Your task to perform on an android device: Set the phone to "Do not disturb". Image 0: 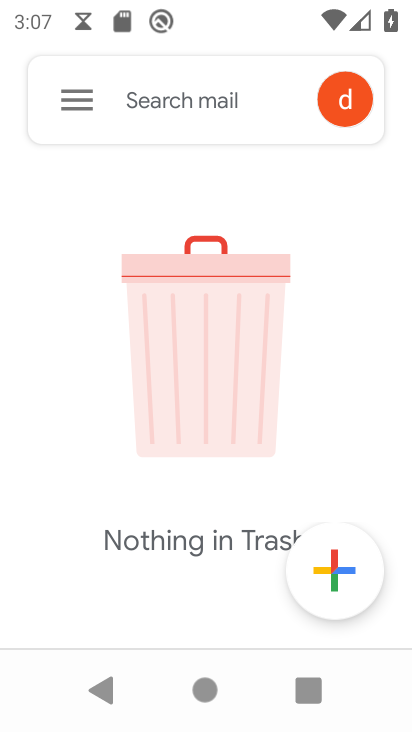
Step 0: press home button
Your task to perform on an android device: Set the phone to "Do not disturb". Image 1: 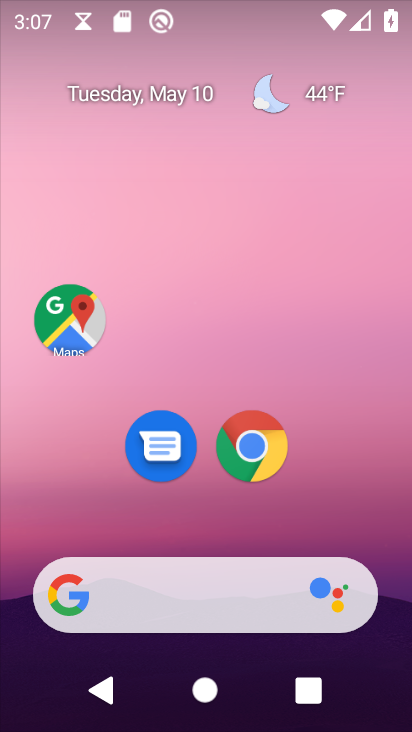
Step 1: drag from (336, 440) to (310, 103)
Your task to perform on an android device: Set the phone to "Do not disturb". Image 2: 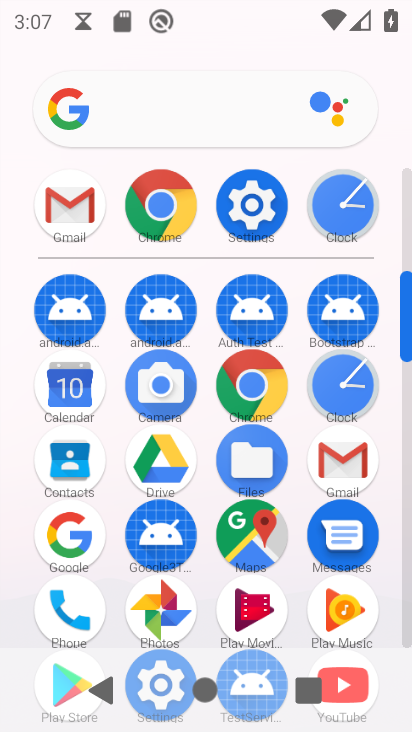
Step 2: click (240, 218)
Your task to perform on an android device: Set the phone to "Do not disturb". Image 3: 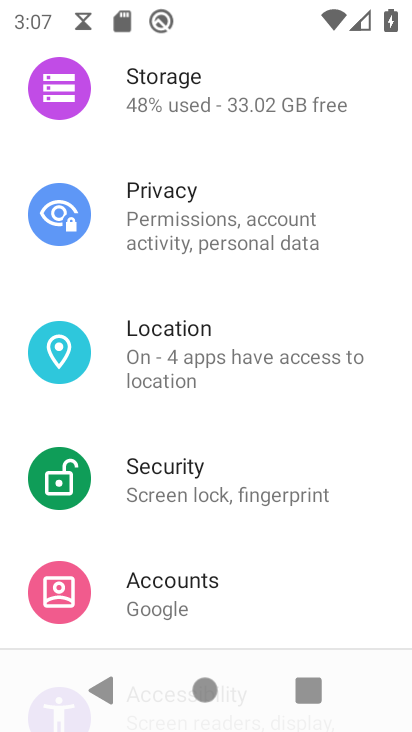
Step 3: drag from (257, 530) to (292, 143)
Your task to perform on an android device: Set the phone to "Do not disturb". Image 4: 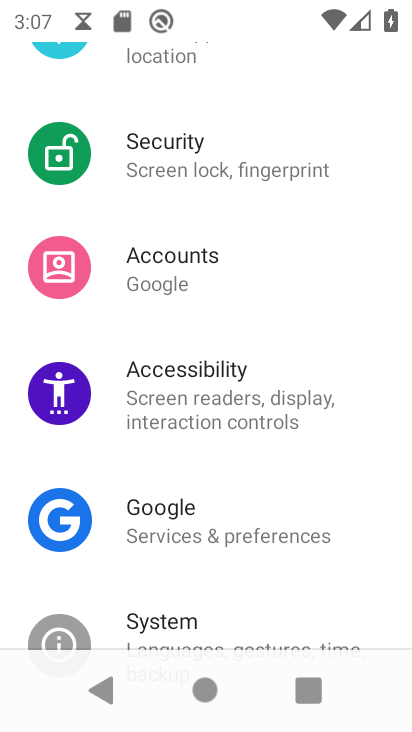
Step 4: drag from (266, 542) to (169, 189)
Your task to perform on an android device: Set the phone to "Do not disturb". Image 5: 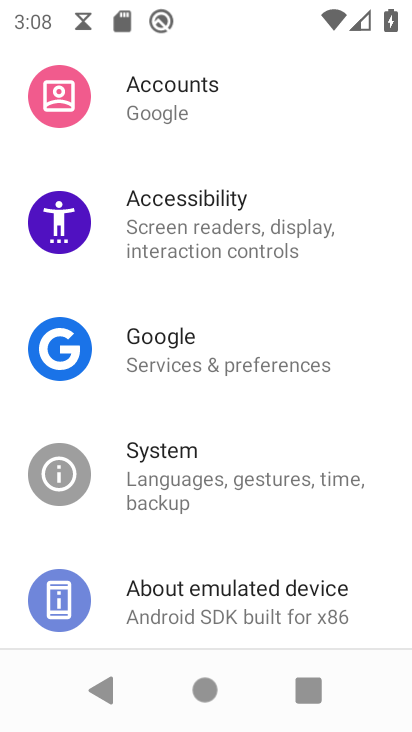
Step 5: drag from (218, 549) to (230, 190)
Your task to perform on an android device: Set the phone to "Do not disturb". Image 6: 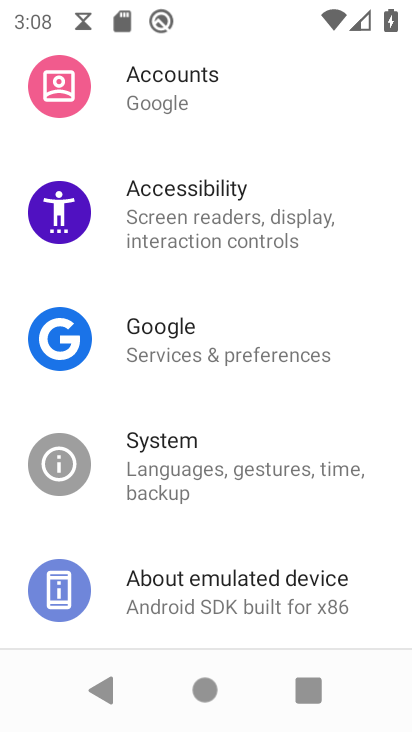
Step 6: drag from (268, 179) to (234, 519)
Your task to perform on an android device: Set the phone to "Do not disturb". Image 7: 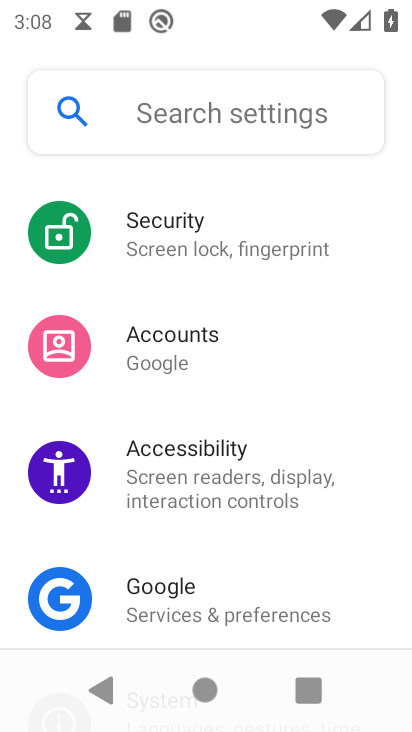
Step 7: drag from (229, 261) to (190, 611)
Your task to perform on an android device: Set the phone to "Do not disturb". Image 8: 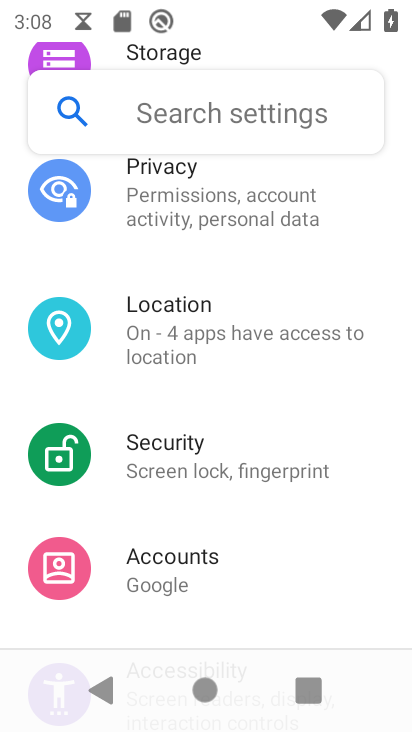
Step 8: drag from (233, 288) to (246, 596)
Your task to perform on an android device: Set the phone to "Do not disturb". Image 9: 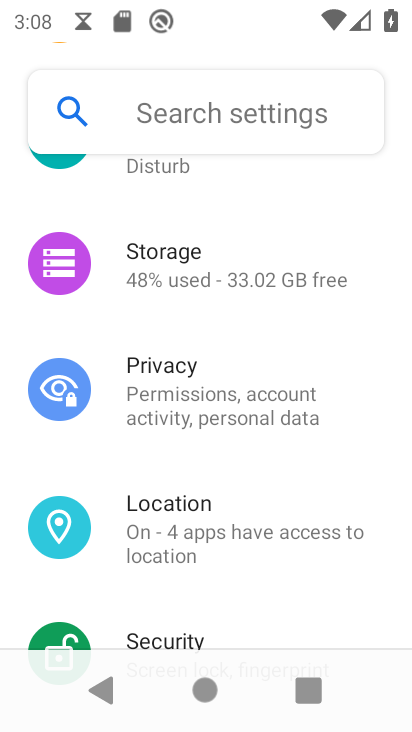
Step 9: drag from (290, 291) to (268, 626)
Your task to perform on an android device: Set the phone to "Do not disturb". Image 10: 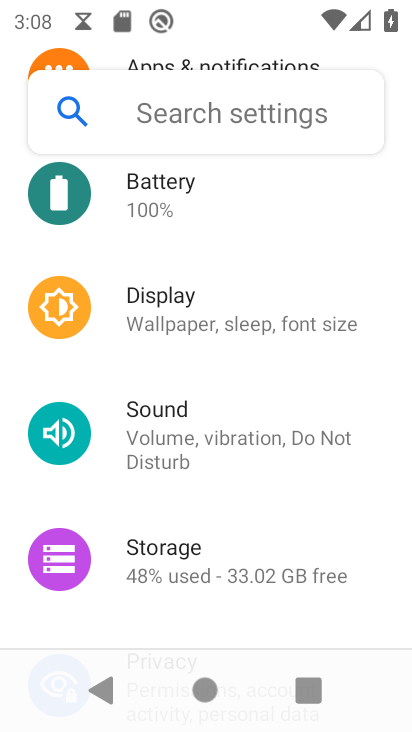
Step 10: click (205, 431)
Your task to perform on an android device: Set the phone to "Do not disturb". Image 11: 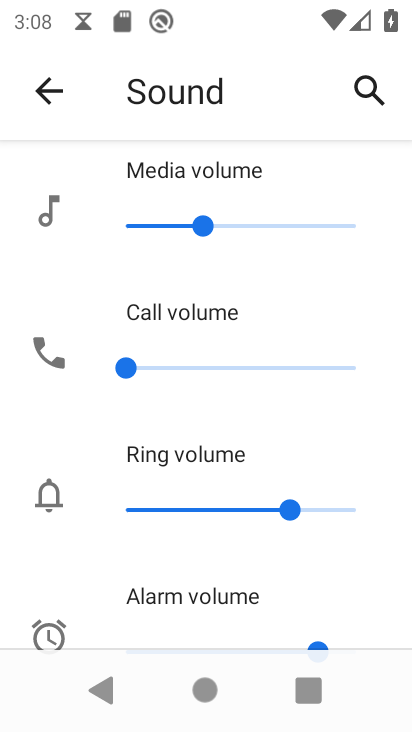
Step 11: drag from (244, 575) to (212, 205)
Your task to perform on an android device: Set the phone to "Do not disturb". Image 12: 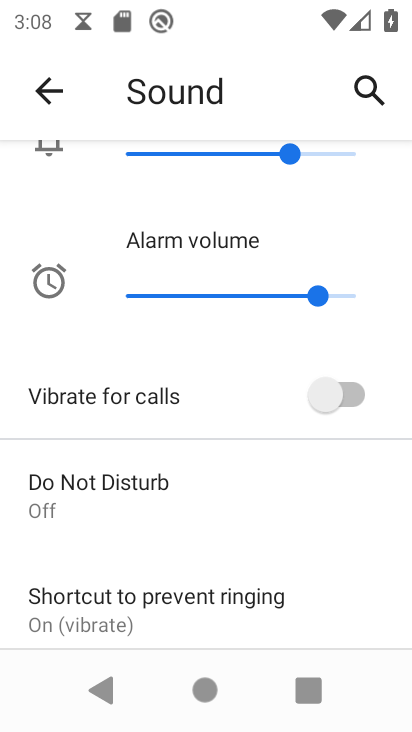
Step 12: drag from (254, 554) to (265, 211)
Your task to perform on an android device: Set the phone to "Do not disturb". Image 13: 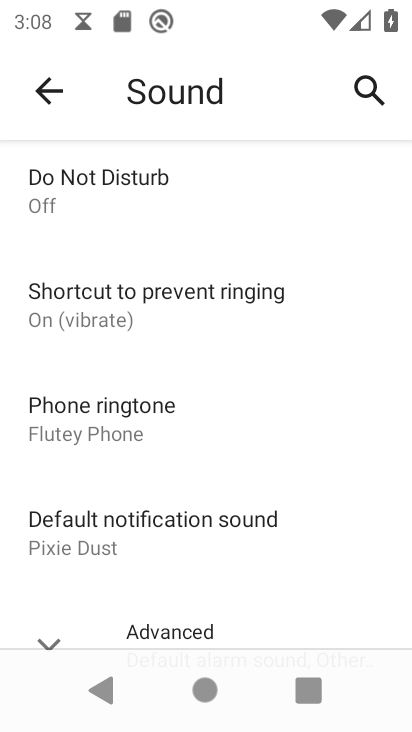
Step 13: drag from (256, 559) to (267, 196)
Your task to perform on an android device: Set the phone to "Do not disturb". Image 14: 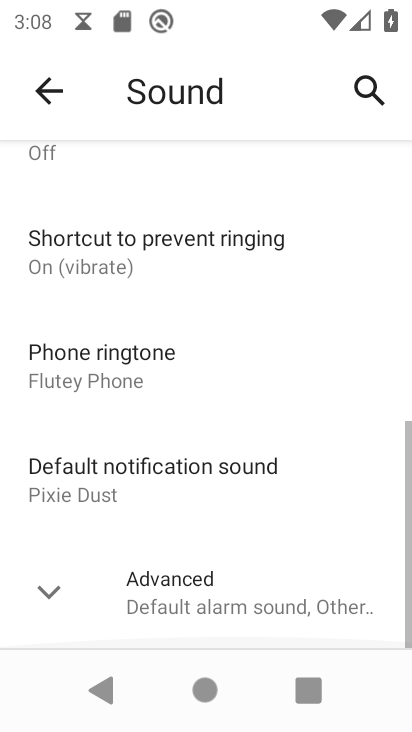
Step 14: drag from (267, 196) to (303, 607)
Your task to perform on an android device: Set the phone to "Do not disturb". Image 15: 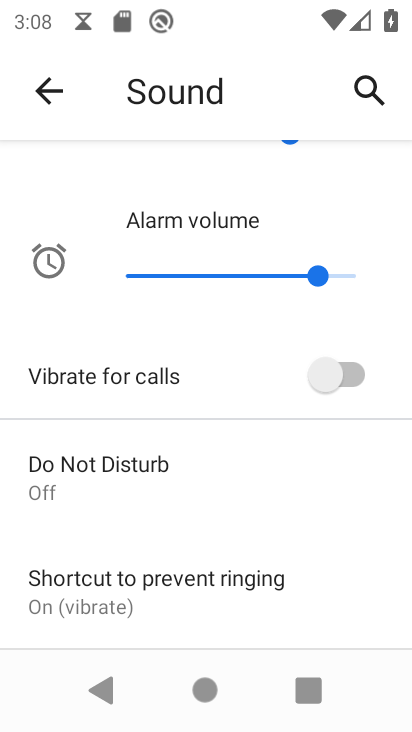
Step 15: click (133, 465)
Your task to perform on an android device: Set the phone to "Do not disturb". Image 16: 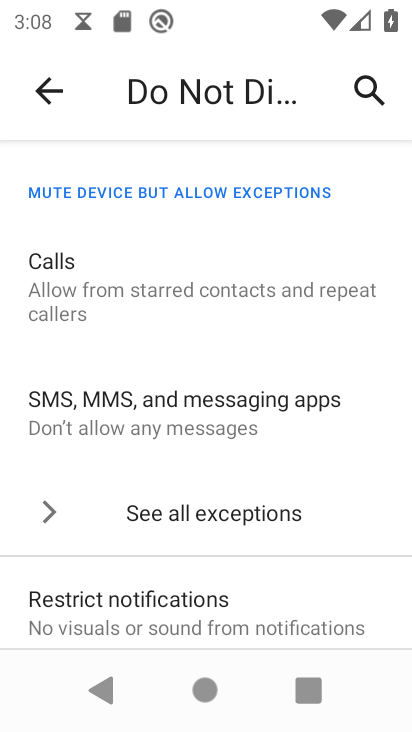
Step 16: drag from (161, 518) to (130, 235)
Your task to perform on an android device: Set the phone to "Do not disturb". Image 17: 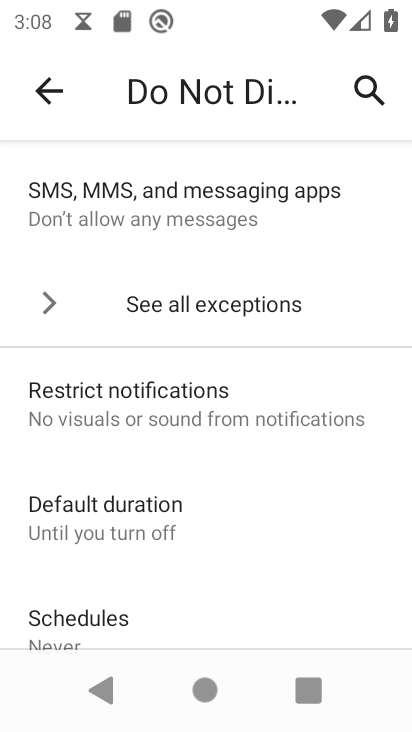
Step 17: drag from (195, 532) to (189, 253)
Your task to perform on an android device: Set the phone to "Do not disturb". Image 18: 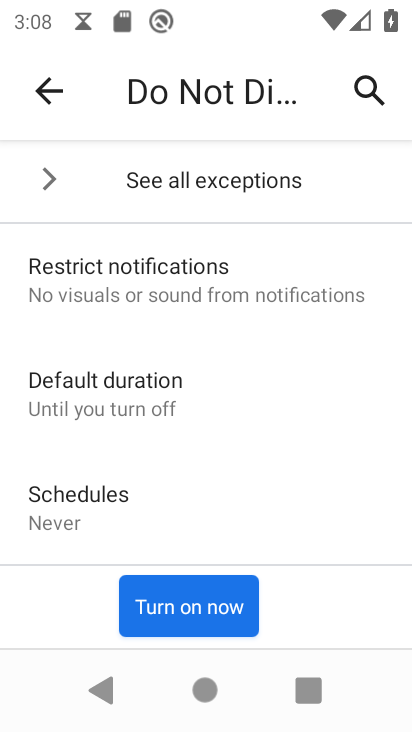
Step 18: click (208, 608)
Your task to perform on an android device: Set the phone to "Do not disturb". Image 19: 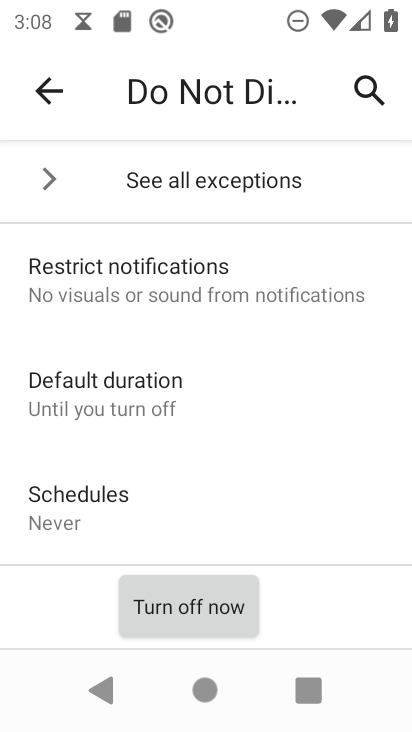
Step 19: task complete